Your task to perform on an android device: Open the Play Movies app and select the watchlist tab. Image 0: 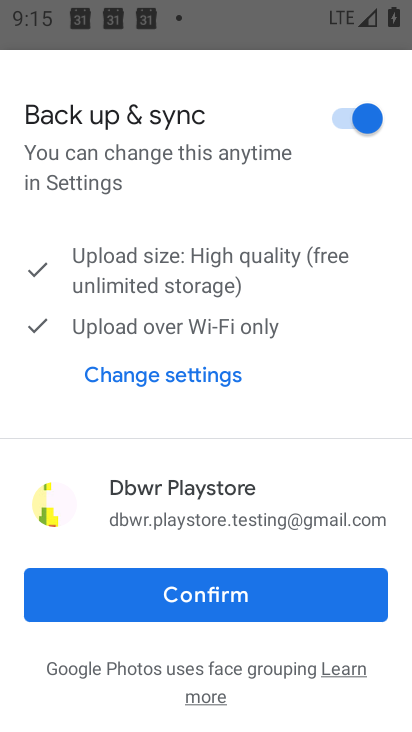
Step 0: press back button
Your task to perform on an android device: Open the Play Movies app and select the watchlist tab. Image 1: 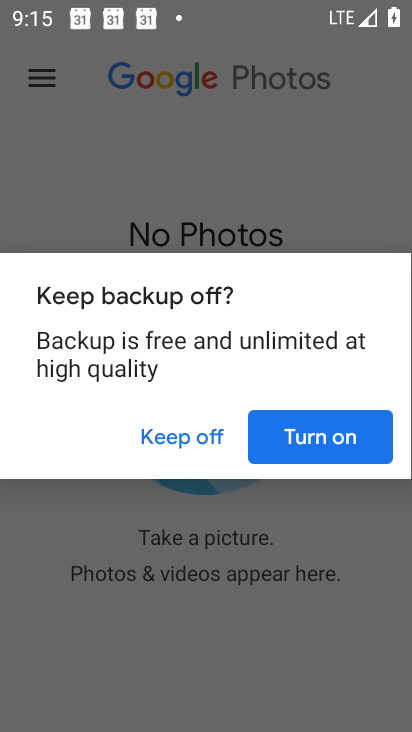
Step 1: press home button
Your task to perform on an android device: Open the Play Movies app and select the watchlist tab. Image 2: 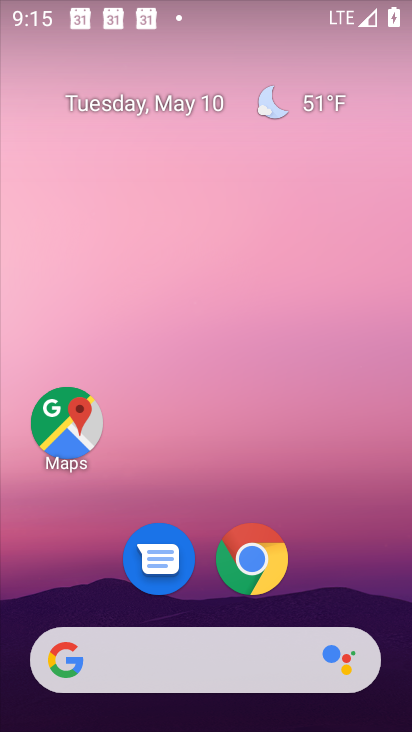
Step 2: drag from (307, 520) to (208, 64)
Your task to perform on an android device: Open the Play Movies app and select the watchlist tab. Image 3: 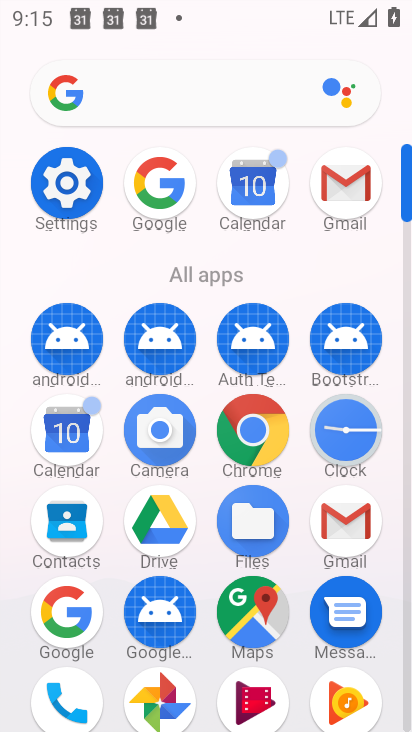
Step 3: drag from (307, 475) to (312, 255)
Your task to perform on an android device: Open the Play Movies app and select the watchlist tab. Image 4: 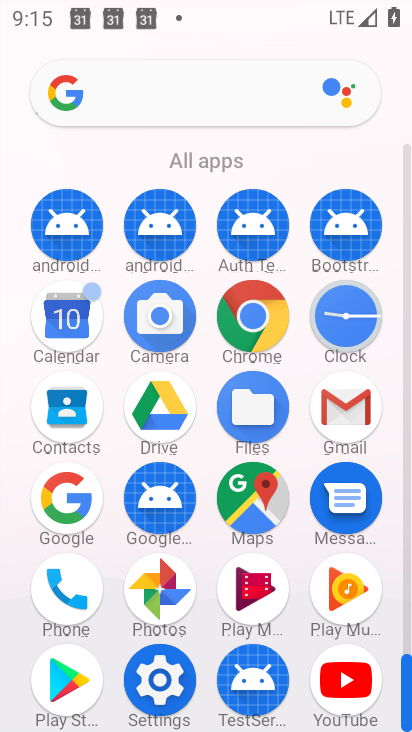
Step 4: click (256, 586)
Your task to perform on an android device: Open the Play Movies app and select the watchlist tab. Image 5: 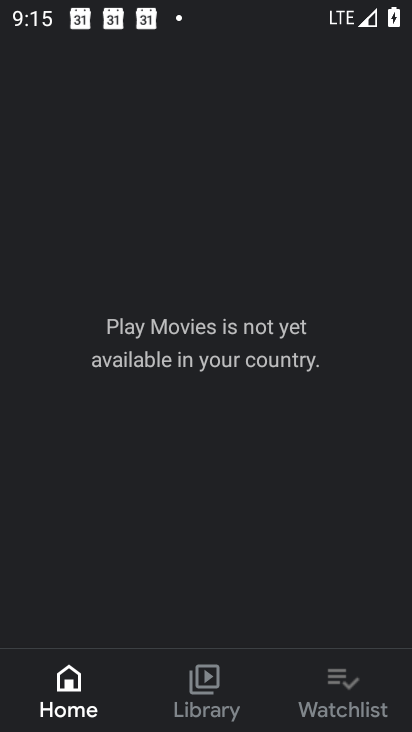
Step 5: click (344, 670)
Your task to perform on an android device: Open the Play Movies app and select the watchlist tab. Image 6: 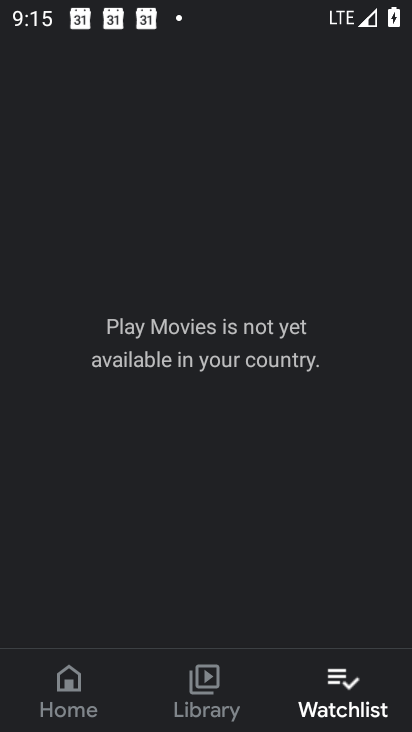
Step 6: task complete